Your task to perform on an android device: toggle priority inbox in the gmail app Image 0: 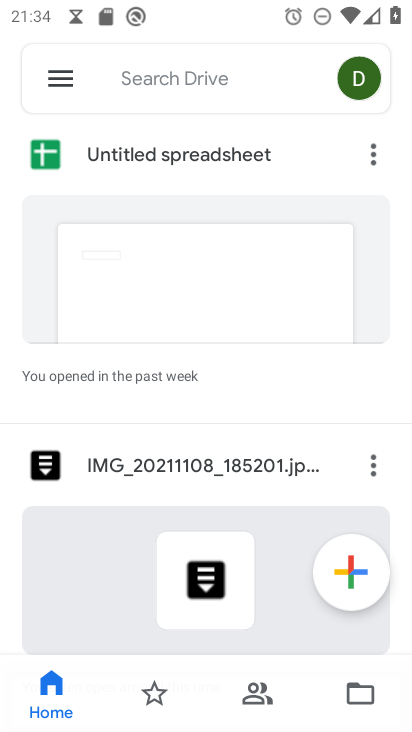
Step 0: press home button
Your task to perform on an android device: toggle priority inbox in the gmail app Image 1: 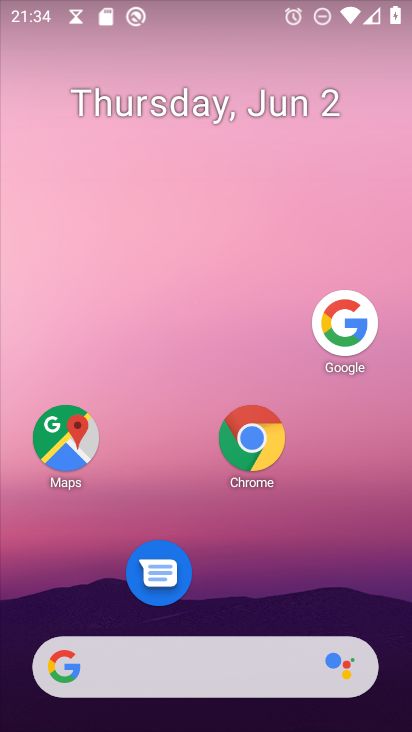
Step 1: drag from (169, 675) to (300, 188)
Your task to perform on an android device: toggle priority inbox in the gmail app Image 2: 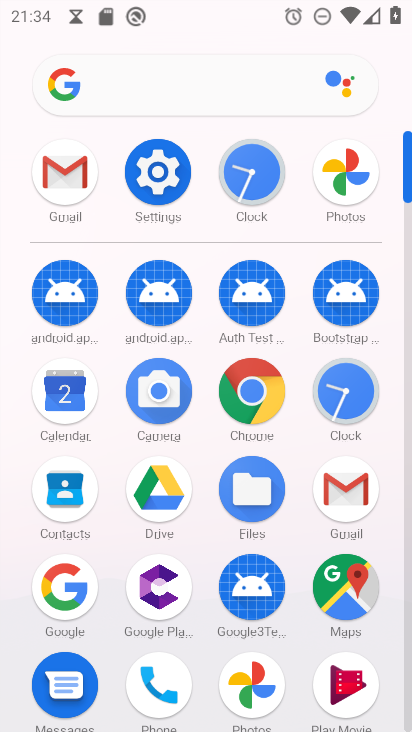
Step 2: click (67, 187)
Your task to perform on an android device: toggle priority inbox in the gmail app Image 3: 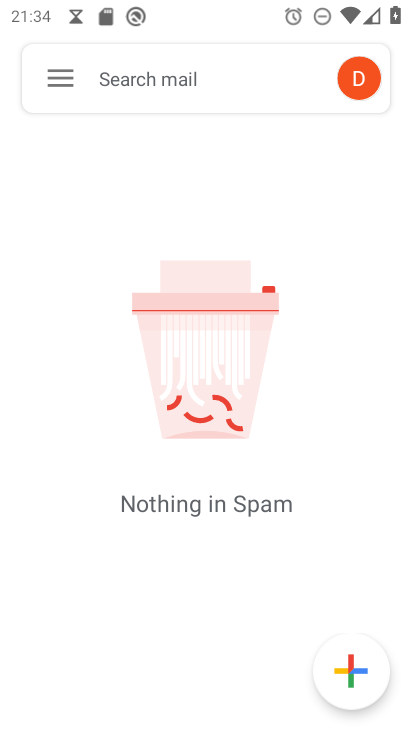
Step 3: click (56, 76)
Your task to perform on an android device: toggle priority inbox in the gmail app Image 4: 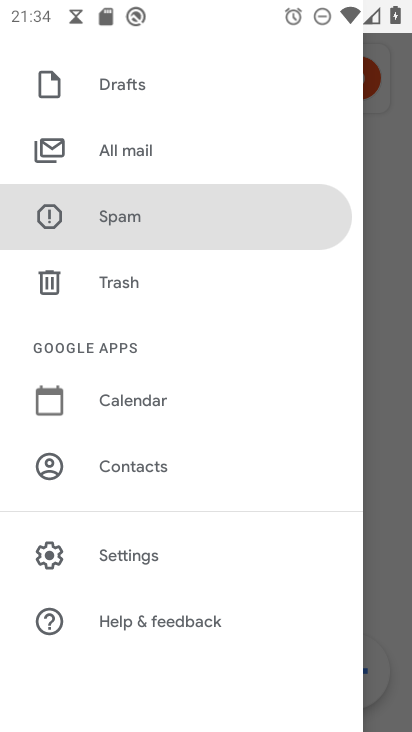
Step 4: click (127, 555)
Your task to perform on an android device: toggle priority inbox in the gmail app Image 5: 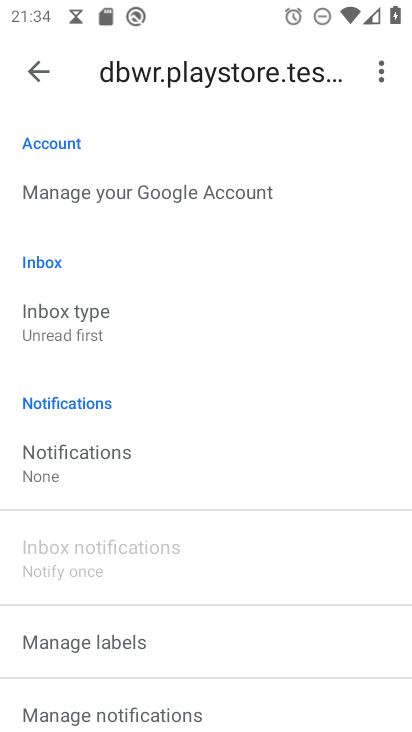
Step 5: click (69, 330)
Your task to perform on an android device: toggle priority inbox in the gmail app Image 6: 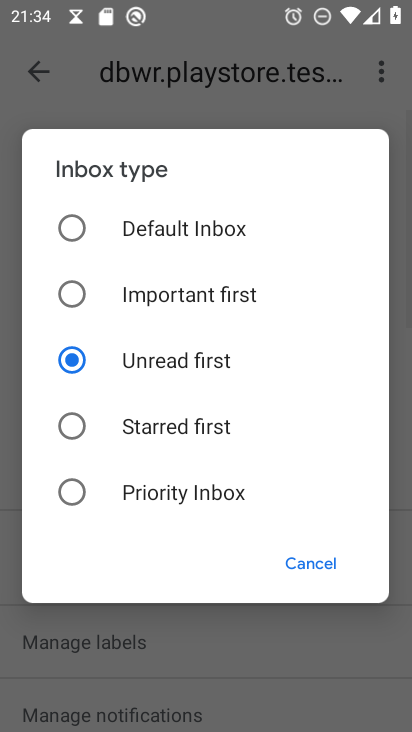
Step 6: click (65, 490)
Your task to perform on an android device: toggle priority inbox in the gmail app Image 7: 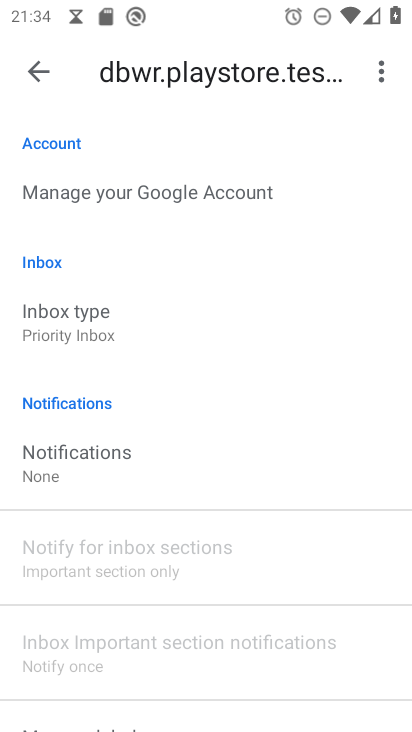
Step 7: task complete